Your task to perform on an android device: turn on the 24-hour format for clock Image 0: 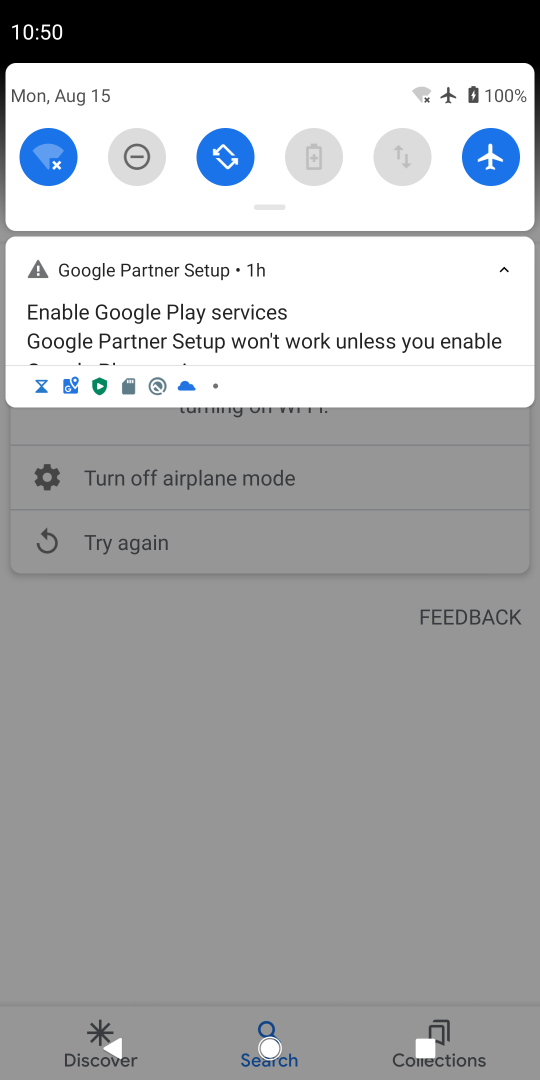
Step 0: press home button
Your task to perform on an android device: turn on the 24-hour format for clock Image 1: 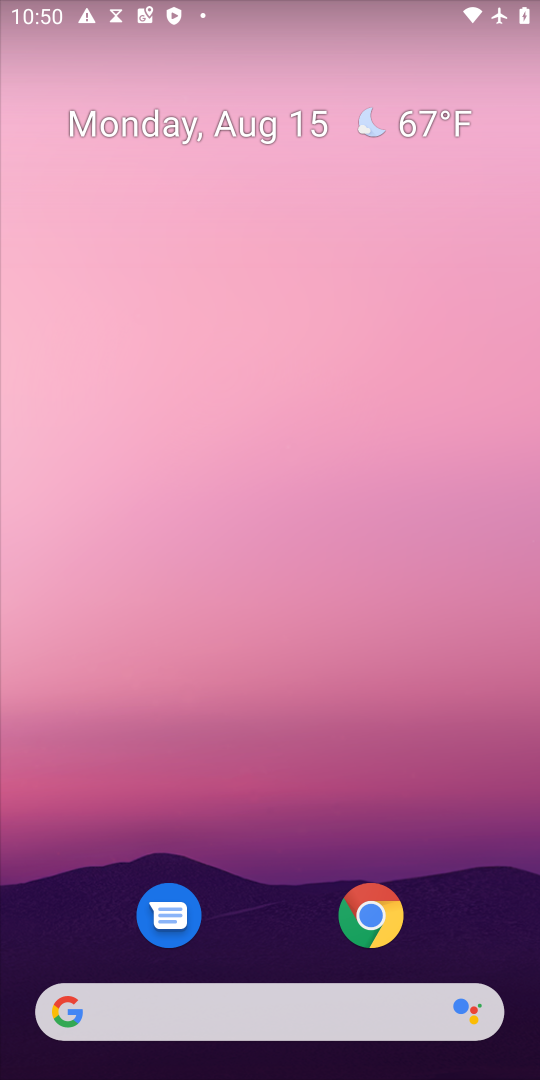
Step 1: drag from (281, 944) to (526, 7)
Your task to perform on an android device: turn on the 24-hour format for clock Image 2: 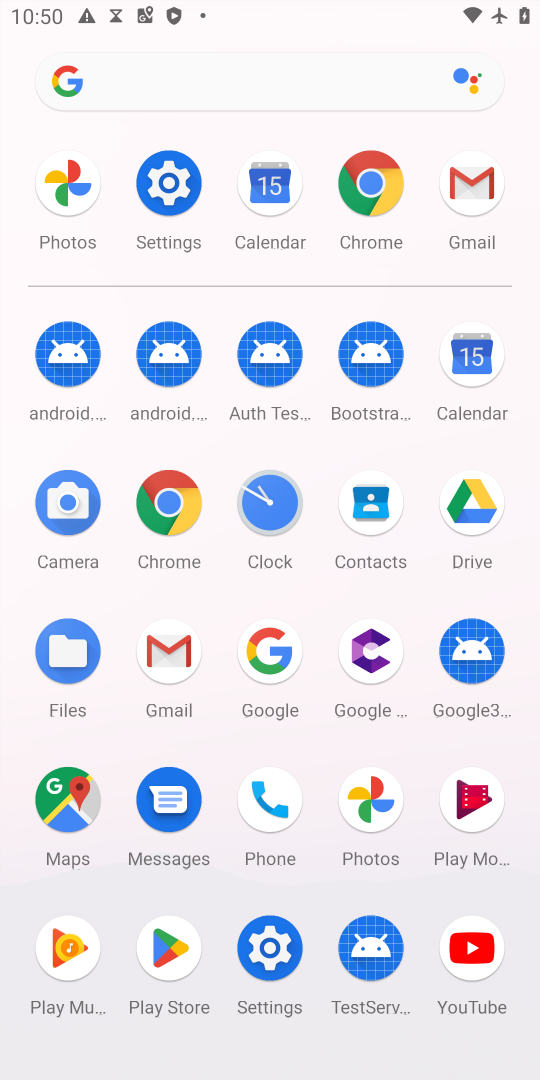
Step 2: click (150, 180)
Your task to perform on an android device: turn on the 24-hour format for clock Image 3: 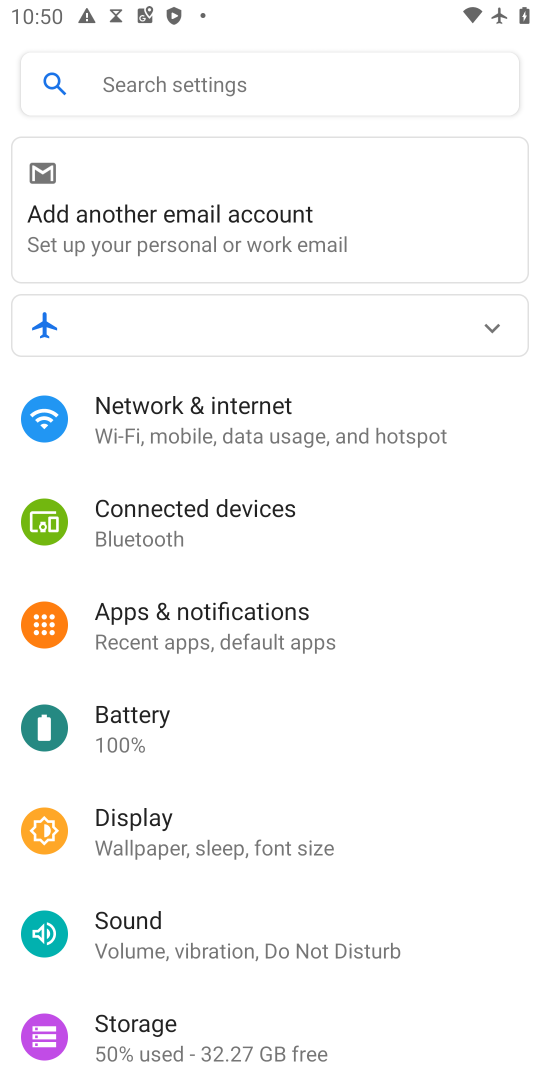
Step 3: drag from (451, 997) to (538, 810)
Your task to perform on an android device: turn on the 24-hour format for clock Image 4: 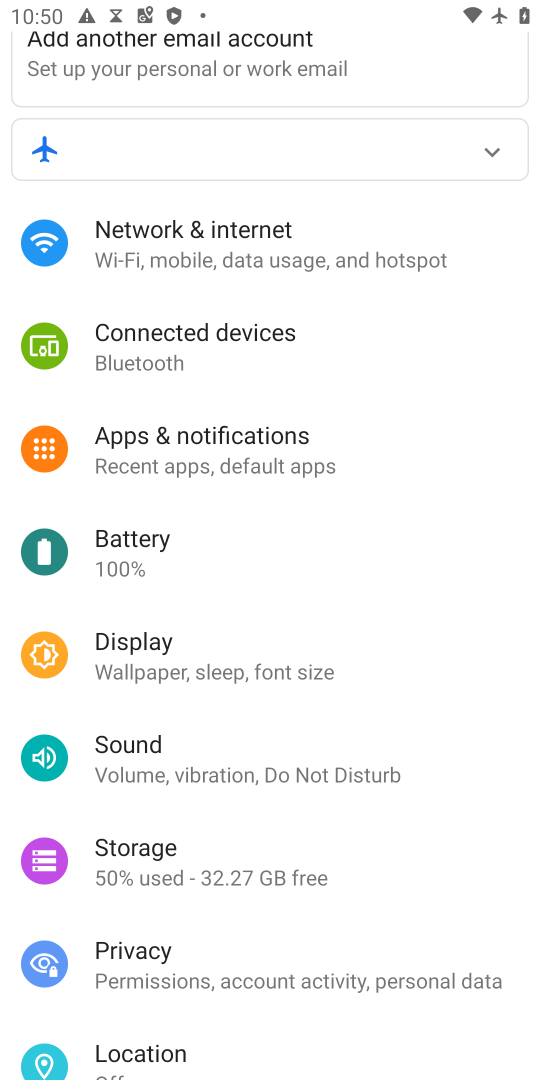
Step 4: drag from (455, 1029) to (507, 365)
Your task to perform on an android device: turn on the 24-hour format for clock Image 5: 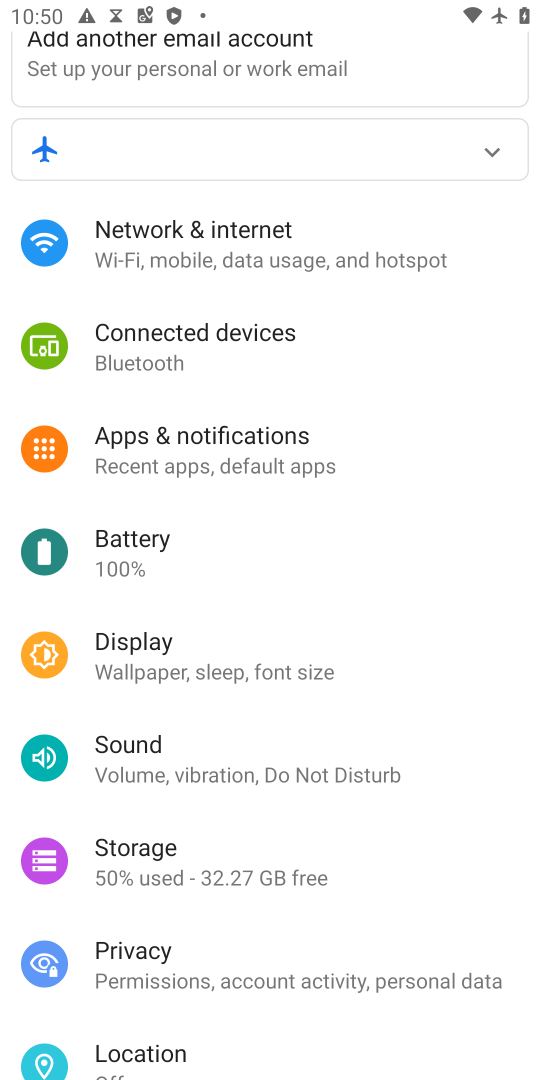
Step 5: drag from (382, 1047) to (375, 366)
Your task to perform on an android device: turn on the 24-hour format for clock Image 6: 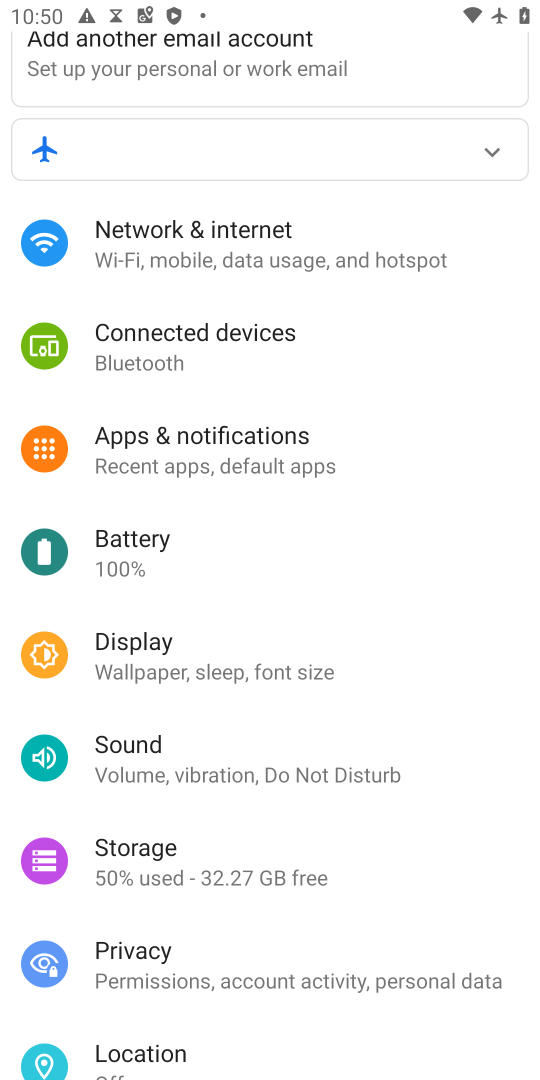
Step 6: drag from (252, 929) to (179, 277)
Your task to perform on an android device: turn on the 24-hour format for clock Image 7: 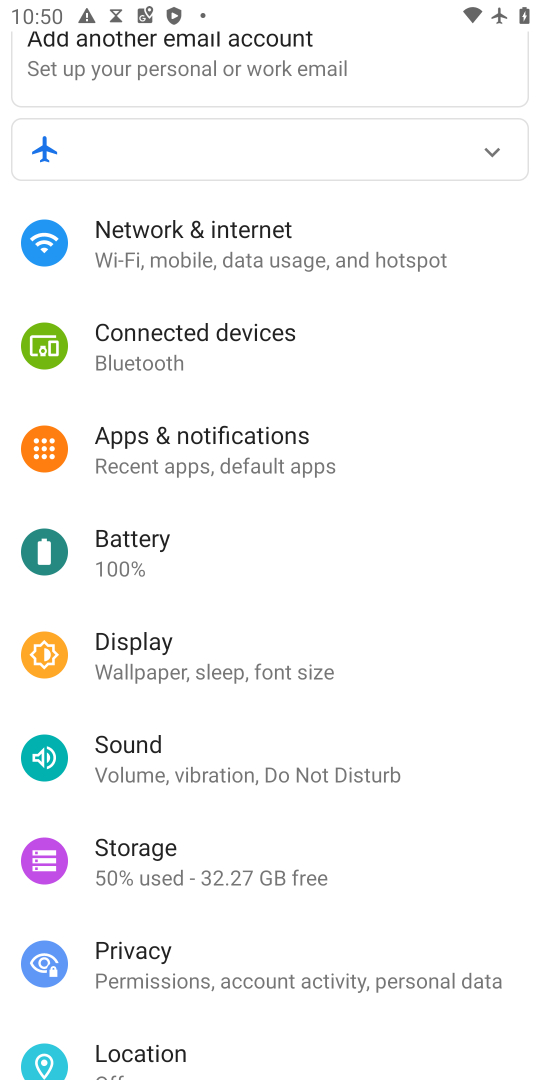
Step 7: drag from (429, 1033) to (495, 280)
Your task to perform on an android device: turn on the 24-hour format for clock Image 8: 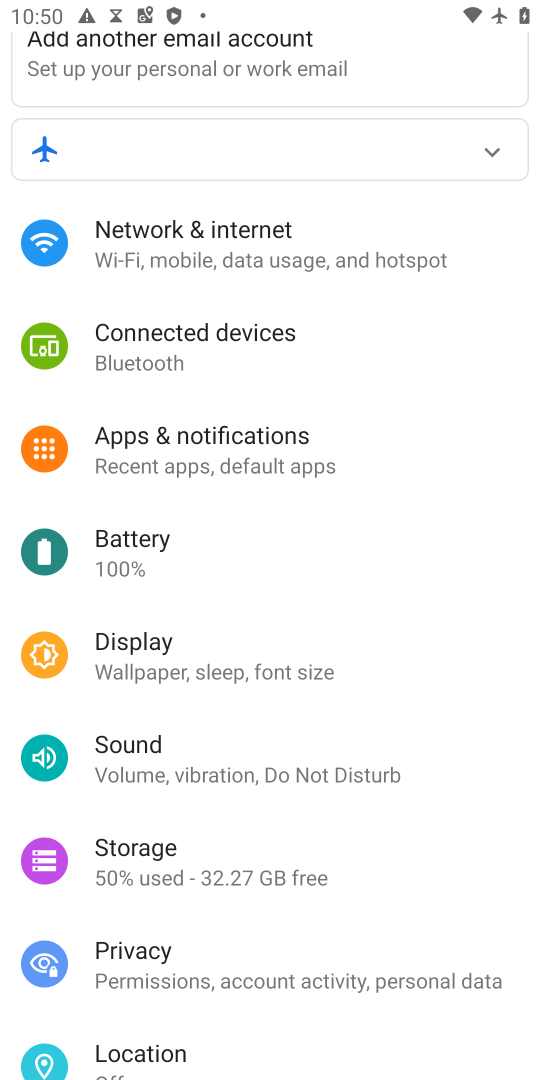
Step 8: drag from (335, 943) to (530, 278)
Your task to perform on an android device: turn on the 24-hour format for clock Image 9: 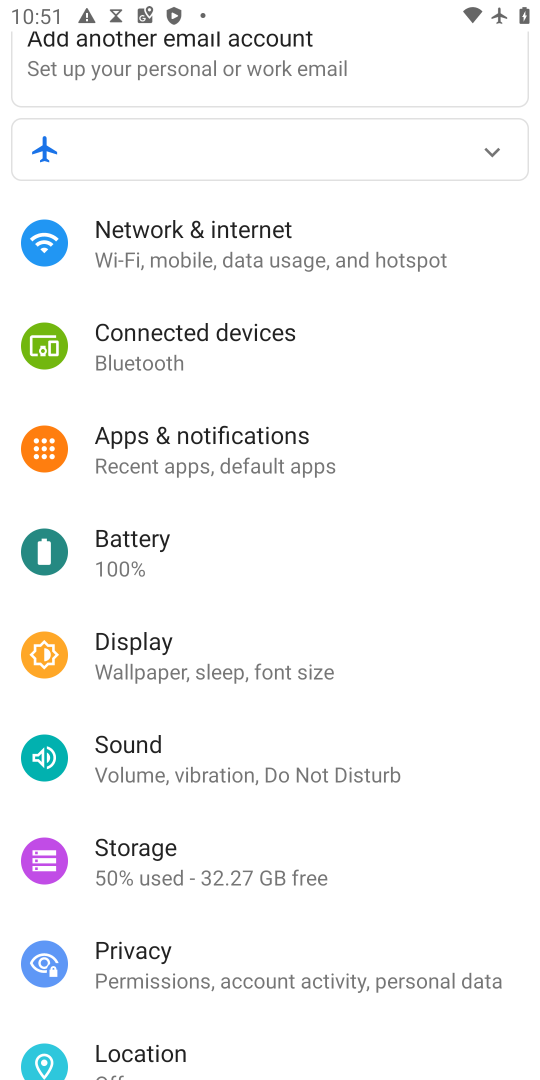
Step 9: drag from (402, 711) to (336, 194)
Your task to perform on an android device: turn on the 24-hour format for clock Image 10: 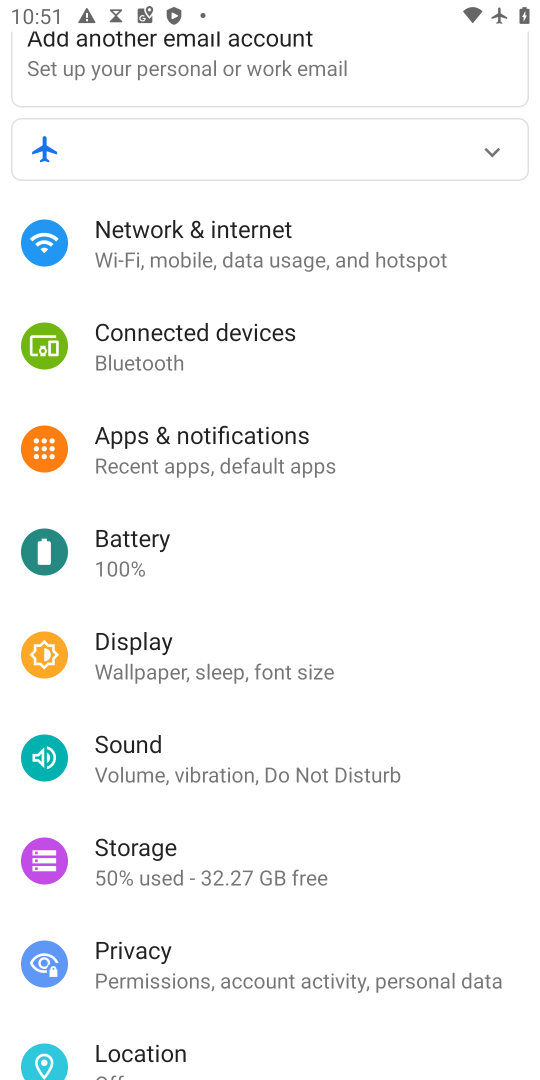
Step 10: drag from (308, 959) to (448, 272)
Your task to perform on an android device: turn on the 24-hour format for clock Image 11: 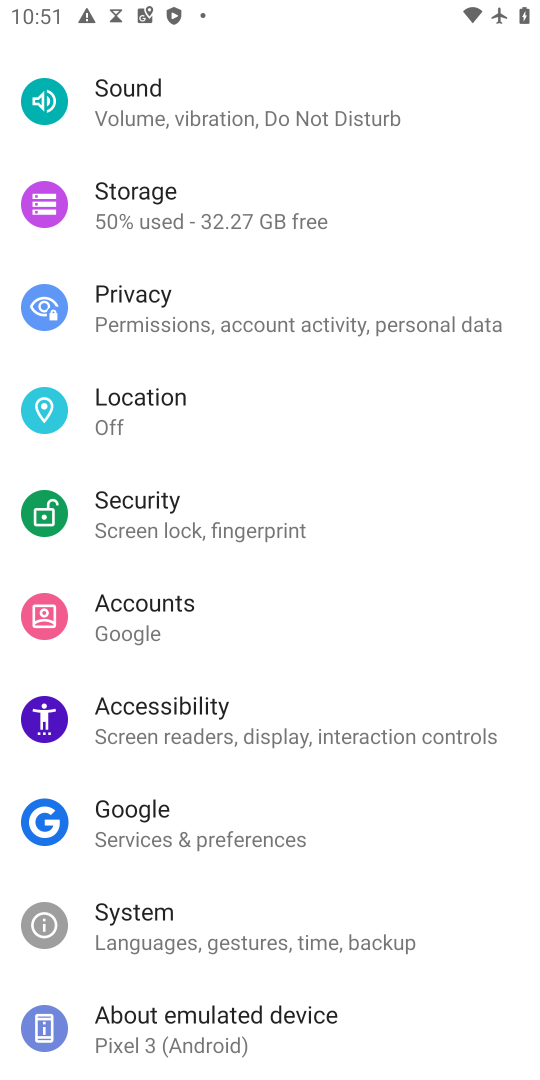
Step 11: click (140, 914)
Your task to perform on an android device: turn on the 24-hour format for clock Image 12: 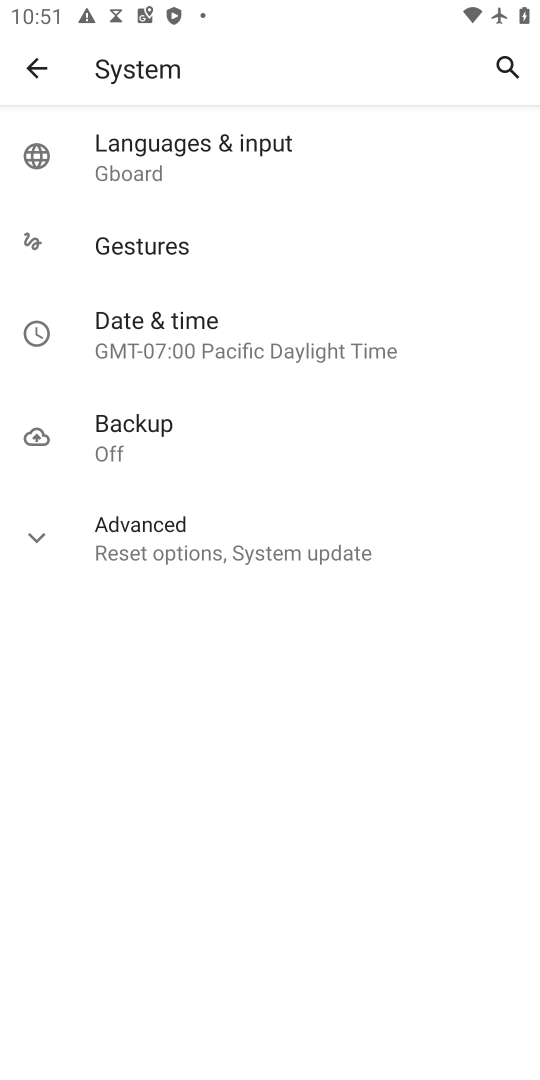
Step 12: click (147, 341)
Your task to perform on an android device: turn on the 24-hour format for clock Image 13: 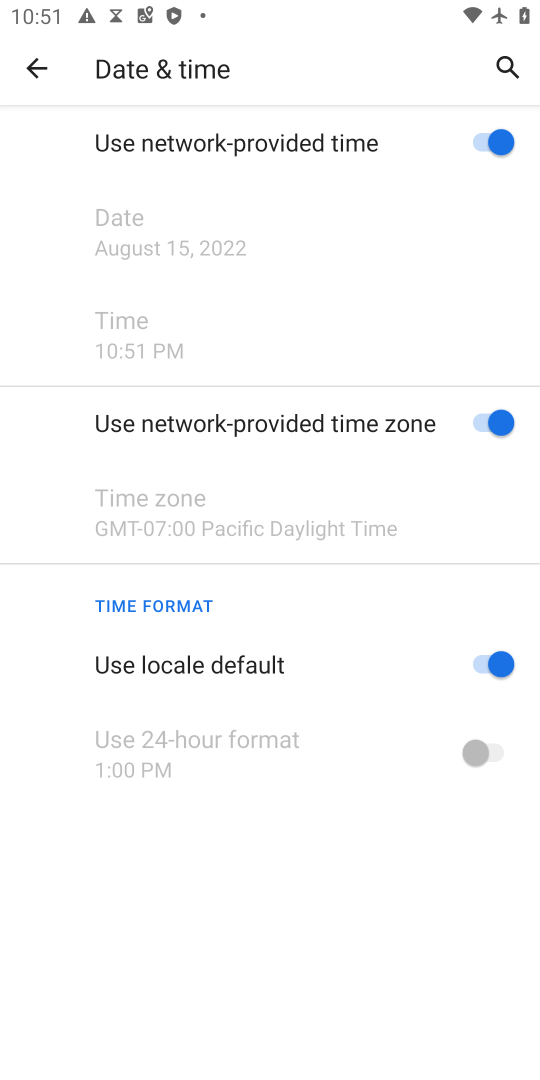
Step 13: click (515, 661)
Your task to perform on an android device: turn on the 24-hour format for clock Image 14: 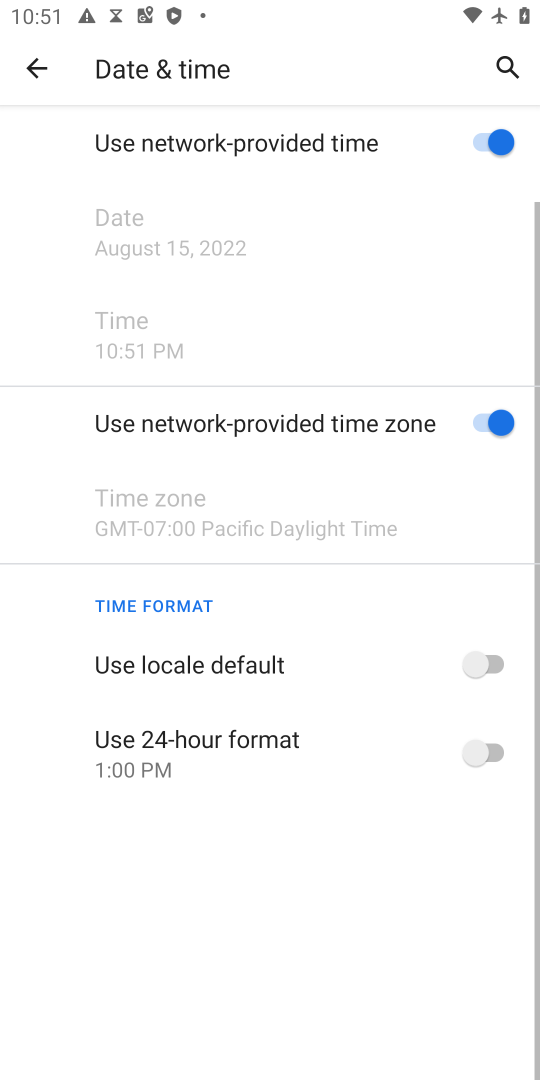
Step 14: click (490, 750)
Your task to perform on an android device: turn on the 24-hour format for clock Image 15: 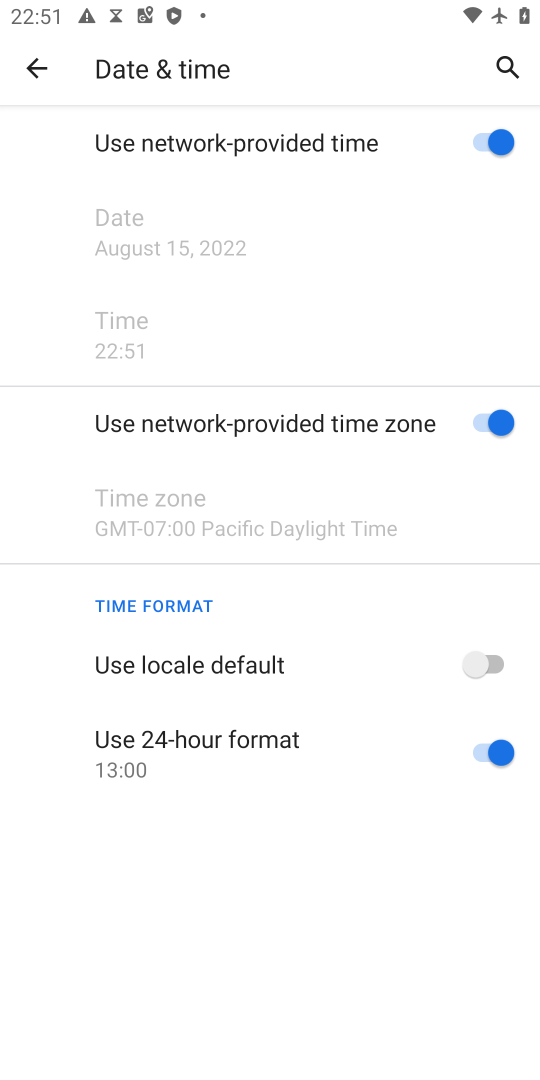
Step 15: task complete